Your task to perform on an android device: change text size in settings app Image 0: 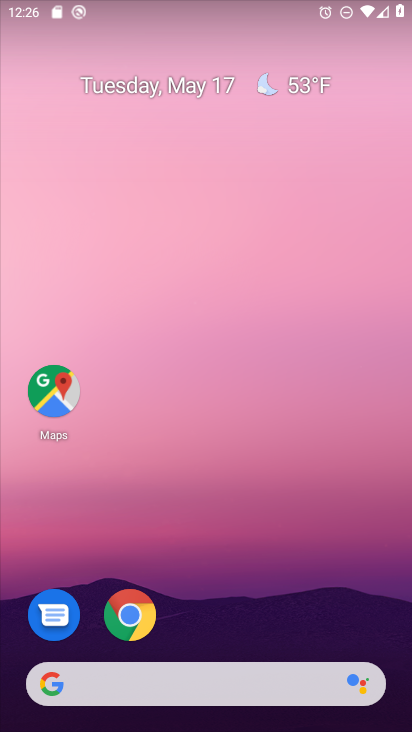
Step 0: drag from (194, 588) to (214, 340)
Your task to perform on an android device: change text size in settings app Image 1: 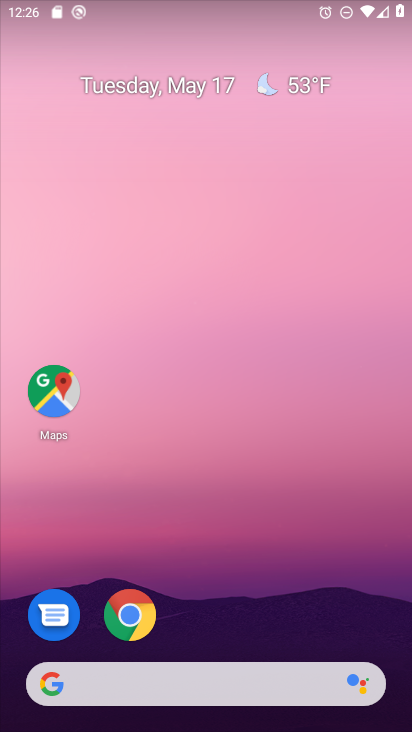
Step 1: drag from (242, 679) to (263, 97)
Your task to perform on an android device: change text size in settings app Image 2: 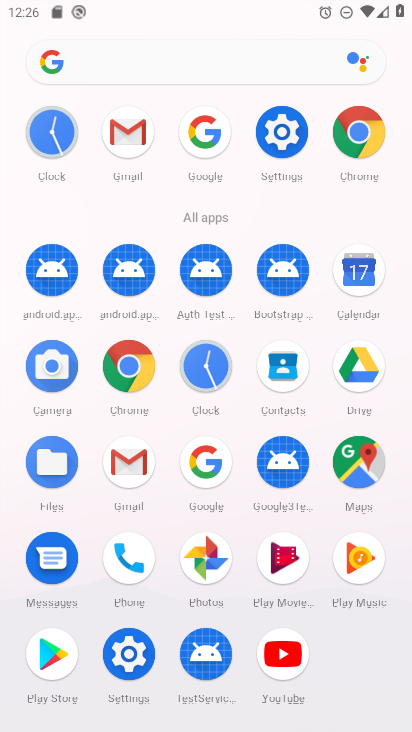
Step 2: click (272, 143)
Your task to perform on an android device: change text size in settings app Image 3: 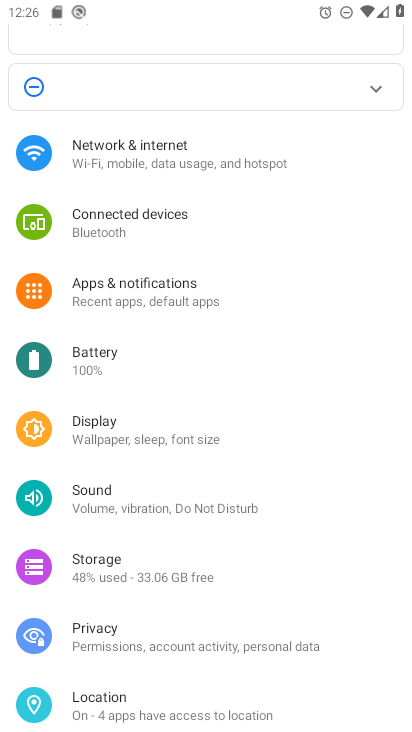
Step 3: drag from (146, 702) to (216, 185)
Your task to perform on an android device: change text size in settings app Image 4: 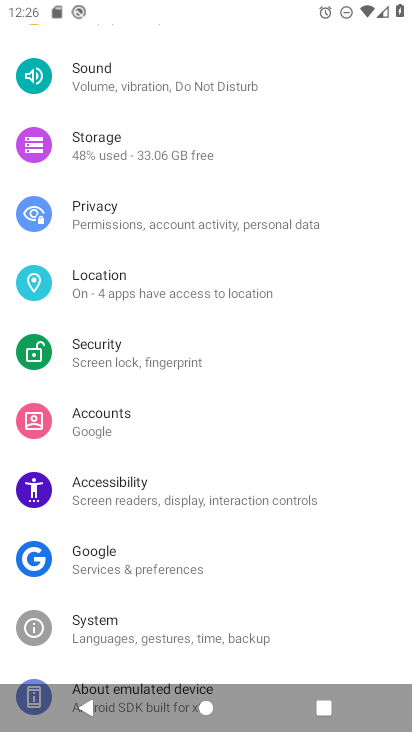
Step 4: click (97, 492)
Your task to perform on an android device: change text size in settings app Image 5: 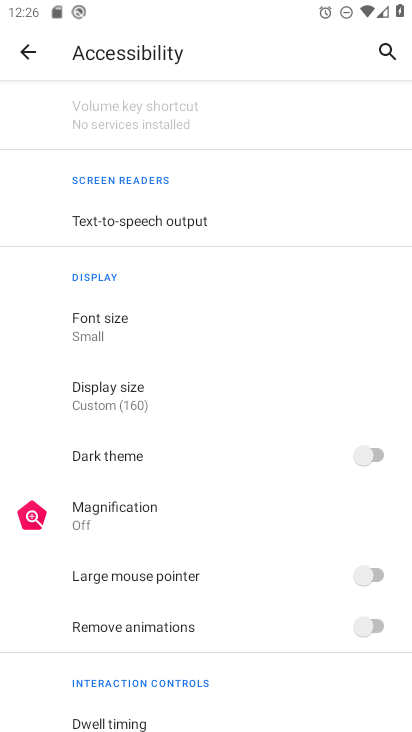
Step 5: click (112, 328)
Your task to perform on an android device: change text size in settings app Image 6: 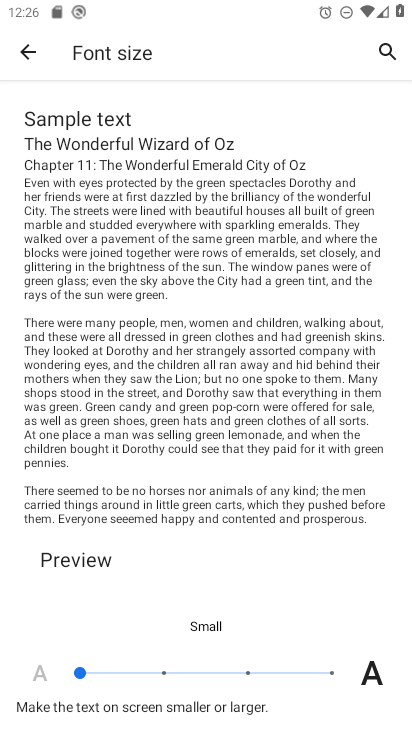
Step 6: click (164, 667)
Your task to perform on an android device: change text size in settings app Image 7: 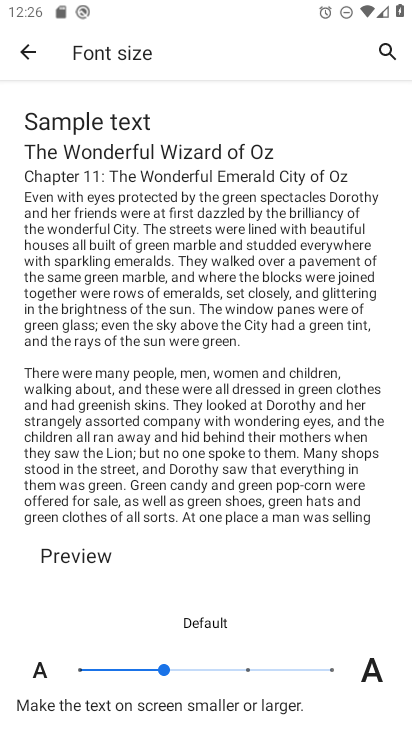
Step 7: task complete